Your task to perform on an android device: find which apps use the phone's location Image 0: 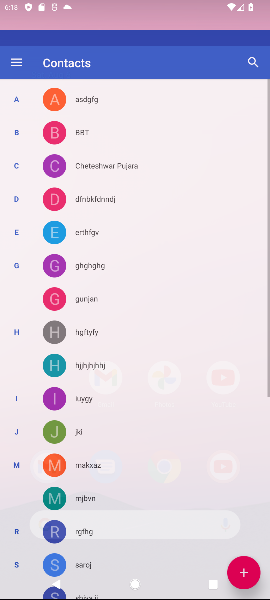
Step 0: press home button
Your task to perform on an android device: find which apps use the phone's location Image 1: 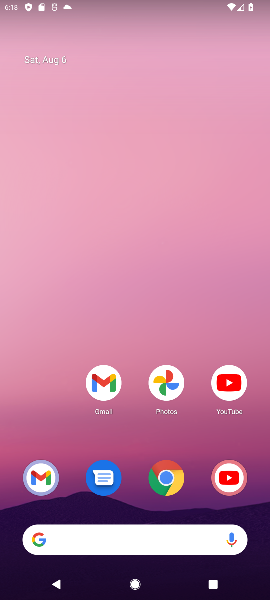
Step 1: drag from (146, 514) to (167, 80)
Your task to perform on an android device: find which apps use the phone's location Image 2: 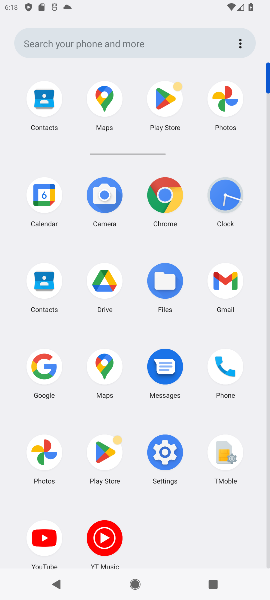
Step 2: click (165, 457)
Your task to perform on an android device: find which apps use the phone's location Image 3: 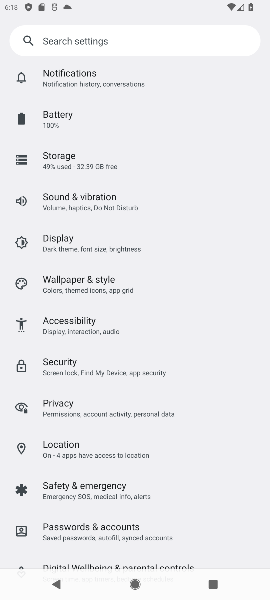
Step 3: click (67, 450)
Your task to perform on an android device: find which apps use the phone's location Image 4: 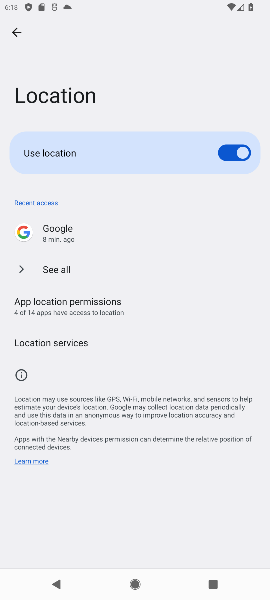
Step 4: click (80, 306)
Your task to perform on an android device: find which apps use the phone's location Image 5: 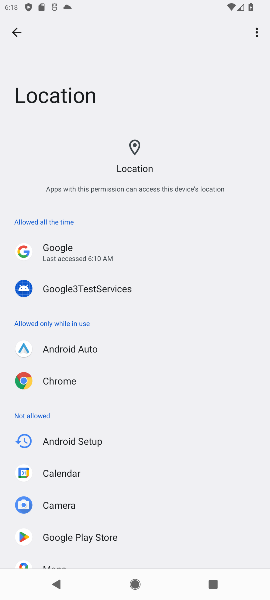
Step 5: task complete